Your task to perform on an android device: Toggle the flashlight Image 0: 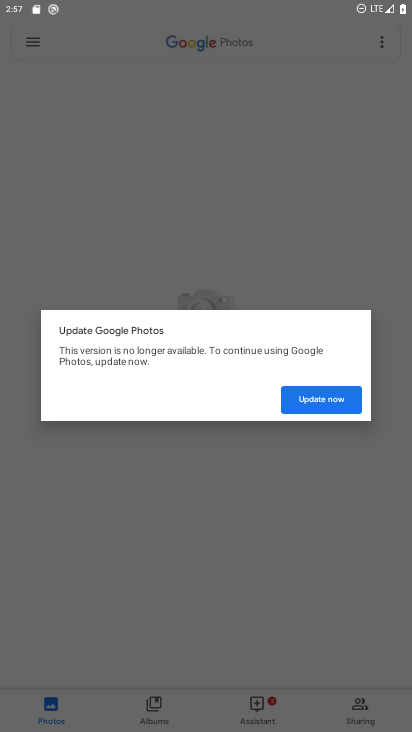
Step 0: press home button
Your task to perform on an android device: Toggle the flashlight Image 1: 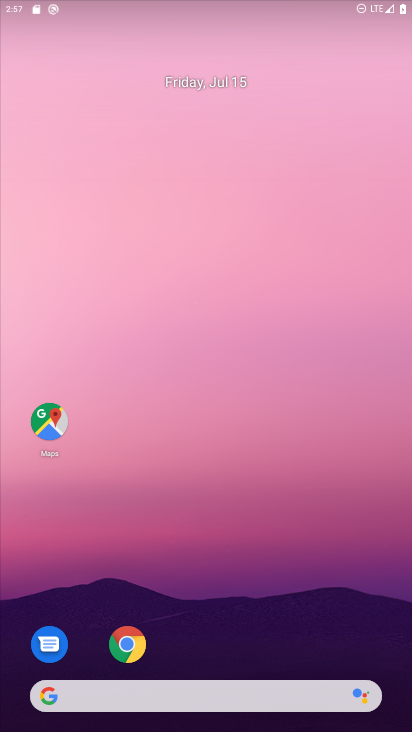
Step 1: drag from (12, 600) to (244, 50)
Your task to perform on an android device: Toggle the flashlight Image 2: 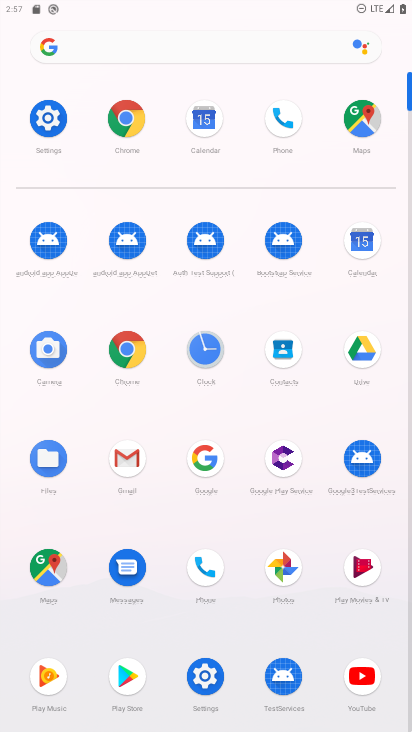
Step 2: click (41, 114)
Your task to perform on an android device: Toggle the flashlight Image 3: 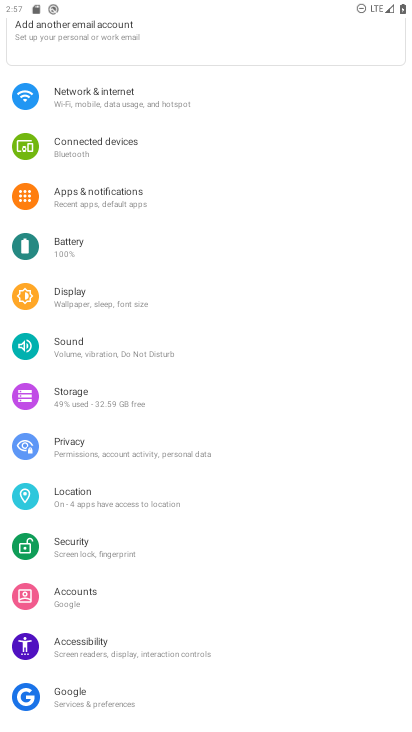
Step 3: task complete